Your task to perform on an android device: Open the web browser Image 0: 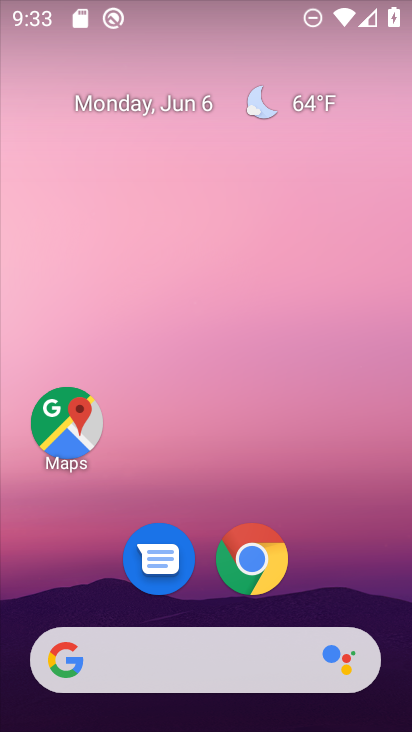
Step 0: click (249, 571)
Your task to perform on an android device: Open the web browser Image 1: 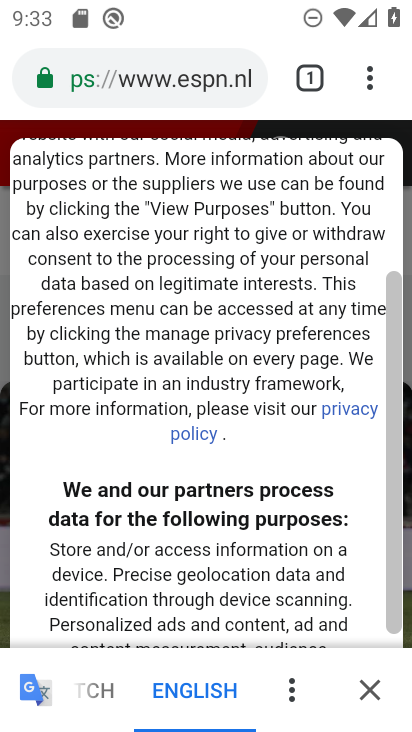
Step 1: task complete